Your task to perform on an android device: turn on bluetooth scan Image 0: 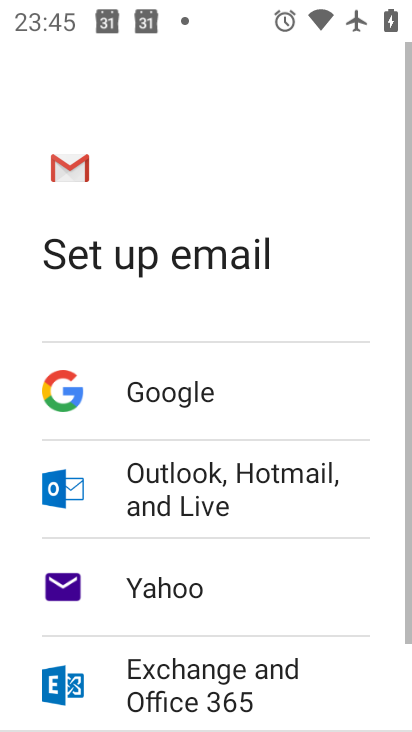
Step 0: press home button
Your task to perform on an android device: turn on bluetooth scan Image 1: 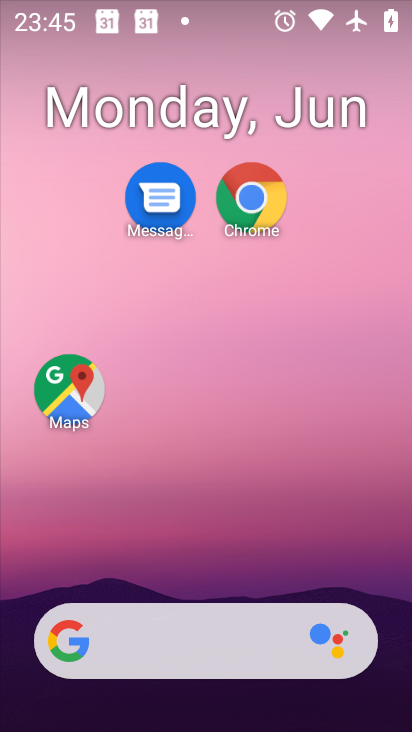
Step 1: drag from (202, 524) to (149, 183)
Your task to perform on an android device: turn on bluetooth scan Image 2: 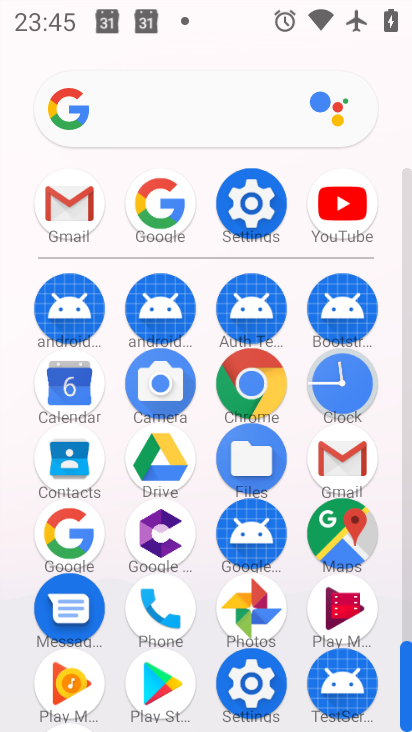
Step 2: click (247, 224)
Your task to perform on an android device: turn on bluetooth scan Image 3: 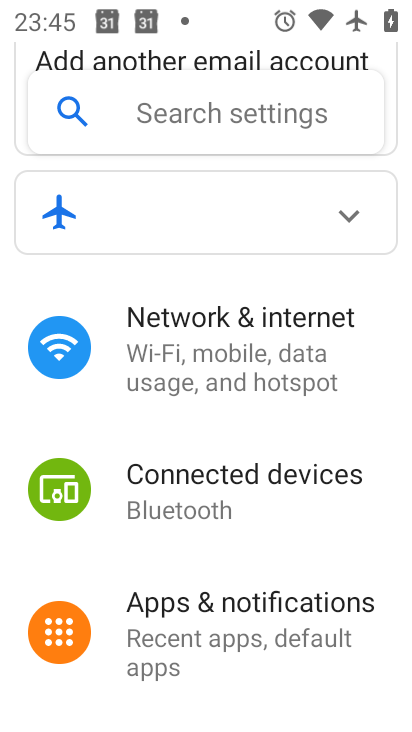
Step 3: drag from (187, 671) to (208, 352)
Your task to perform on an android device: turn on bluetooth scan Image 4: 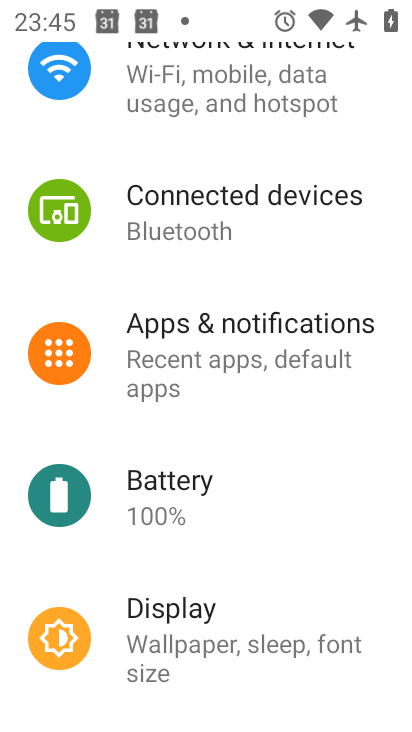
Step 4: drag from (222, 605) to (227, 361)
Your task to perform on an android device: turn on bluetooth scan Image 5: 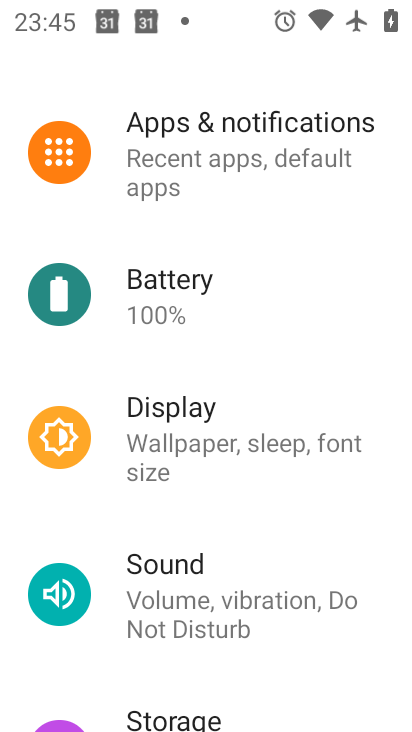
Step 5: drag from (242, 635) to (249, 398)
Your task to perform on an android device: turn on bluetooth scan Image 6: 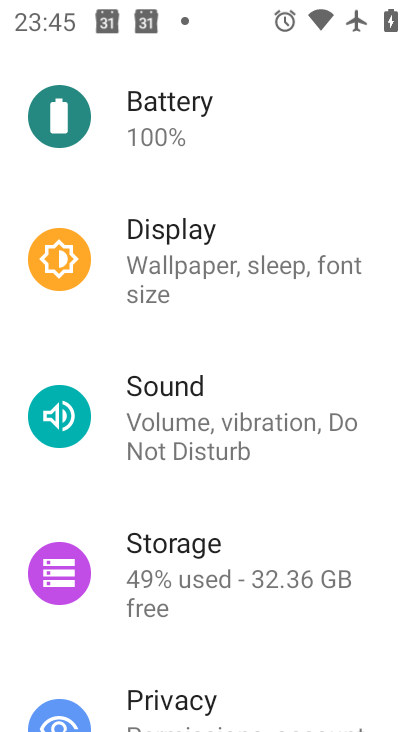
Step 6: drag from (231, 622) to (231, 349)
Your task to perform on an android device: turn on bluetooth scan Image 7: 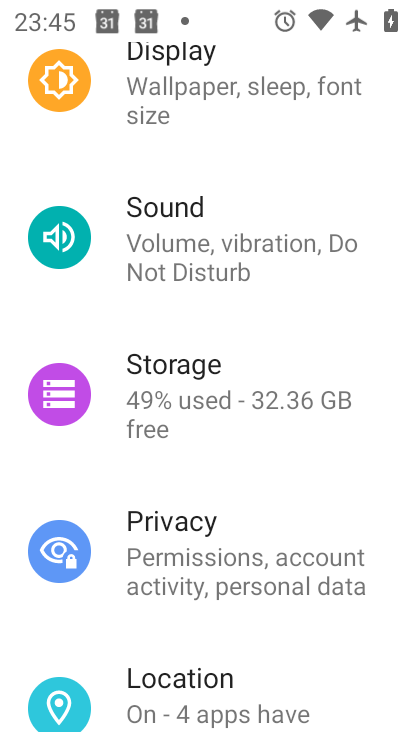
Step 7: click (223, 682)
Your task to perform on an android device: turn on bluetooth scan Image 8: 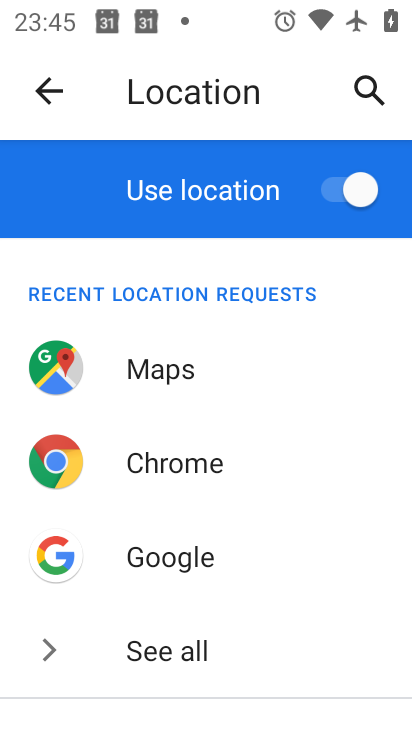
Step 8: drag from (228, 645) to (228, 375)
Your task to perform on an android device: turn on bluetooth scan Image 9: 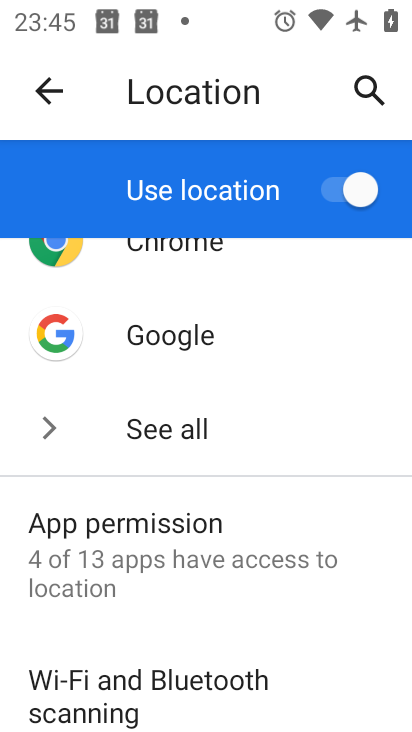
Step 9: drag from (229, 633) to (247, 424)
Your task to perform on an android device: turn on bluetooth scan Image 10: 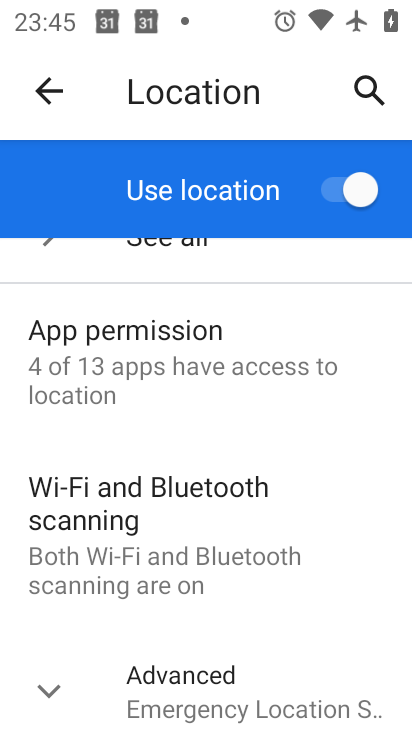
Step 10: click (208, 576)
Your task to perform on an android device: turn on bluetooth scan Image 11: 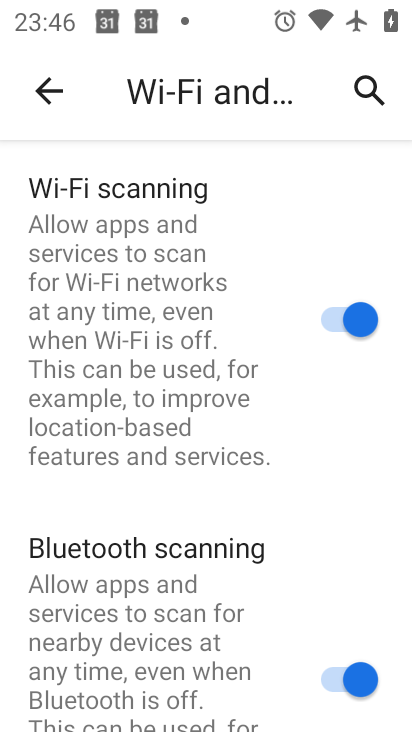
Step 11: task complete